Your task to perform on an android device: change the clock style Image 0: 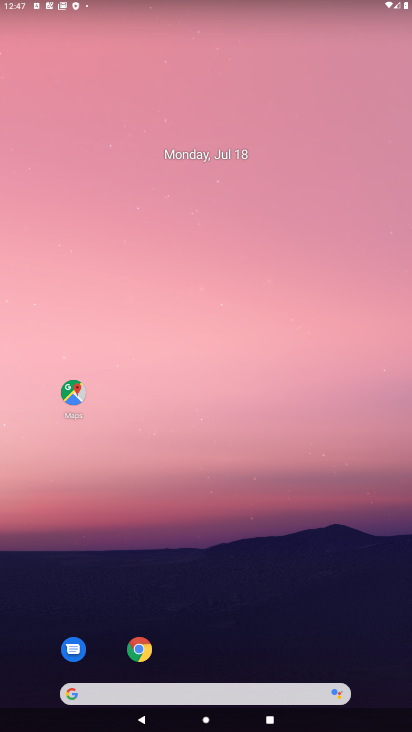
Step 0: drag from (384, 670) to (341, 180)
Your task to perform on an android device: change the clock style Image 1: 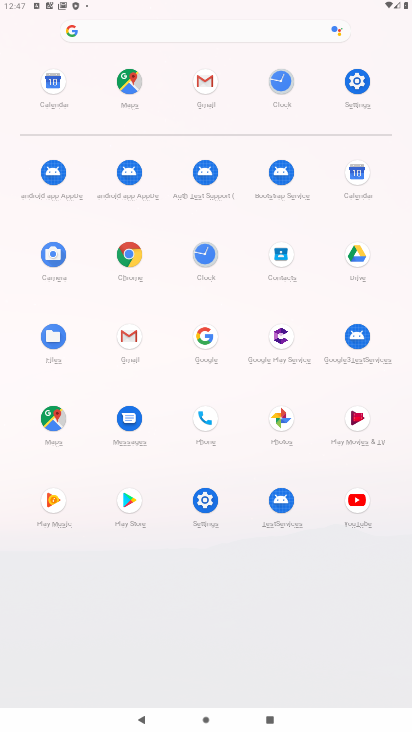
Step 1: click (205, 253)
Your task to perform on an android device: change the clock style Image 2: 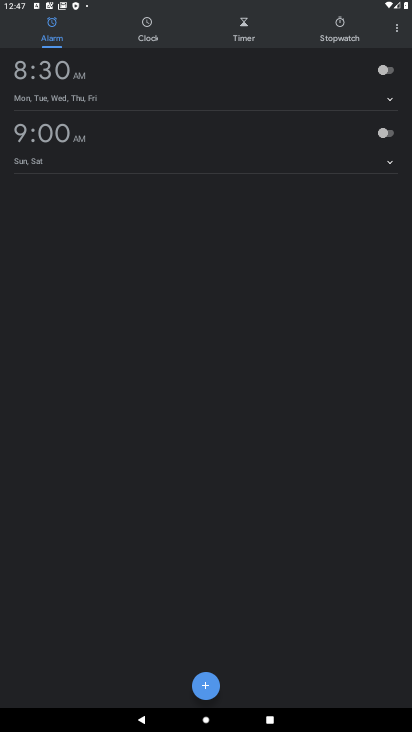
Step 2: click (396, 31)
Your task to perform on an android device: change the clock style Image 3: 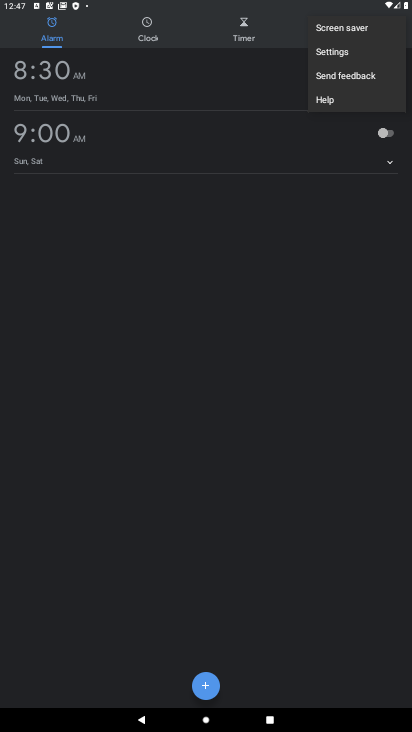
Step 3: click (327, 54)
Your task to perform on an android device: change the clock style Image 4: 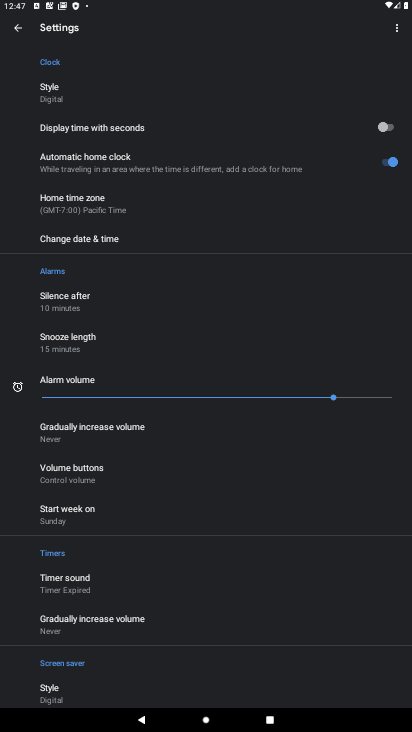
Step 4: click (56, 89)
Your task to perform on an android device: change the clock style Image 5: 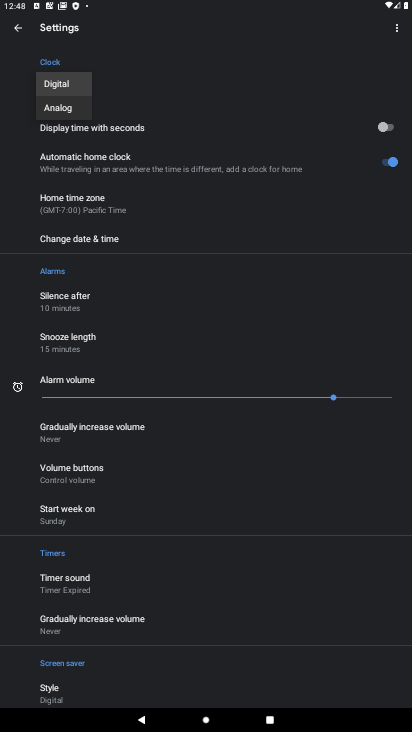
Step 5: click (60, 110)
Your task to perform on an android device: change the clock style Image 6: 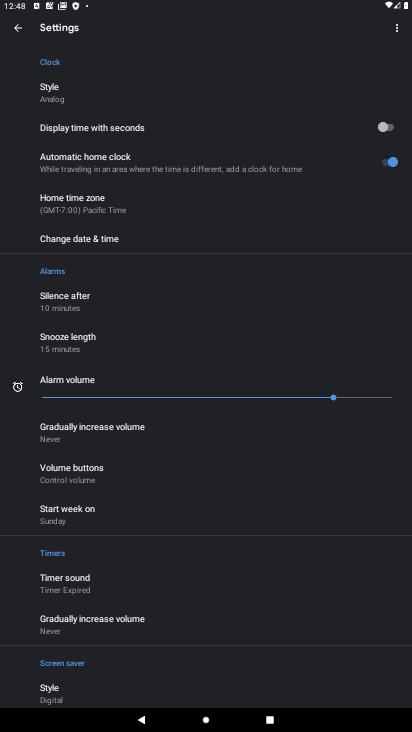
Step 6: task complete